Your task to perform on an android device: Open privacy settings Image 0: 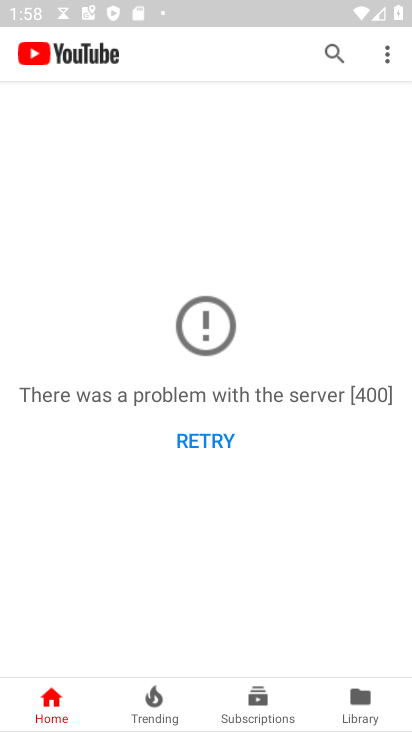
Step 0: press back button
Your task to perform on an android device: Open privacy settings Image 1: 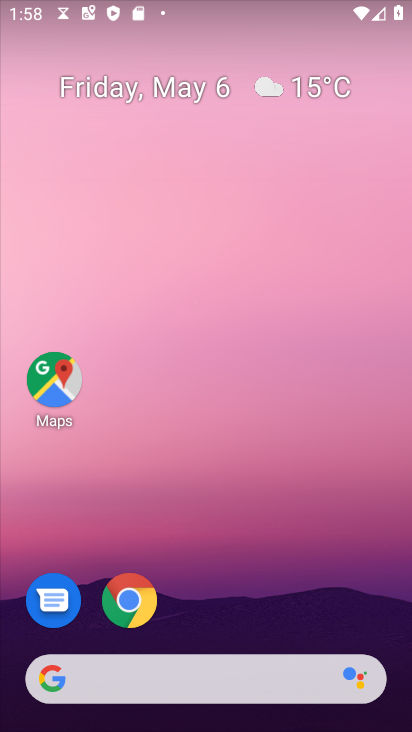
Step 1: drag from (251, 533) to (201, 46)
Your task to perform on an android device: Open privacy settings Image 2: 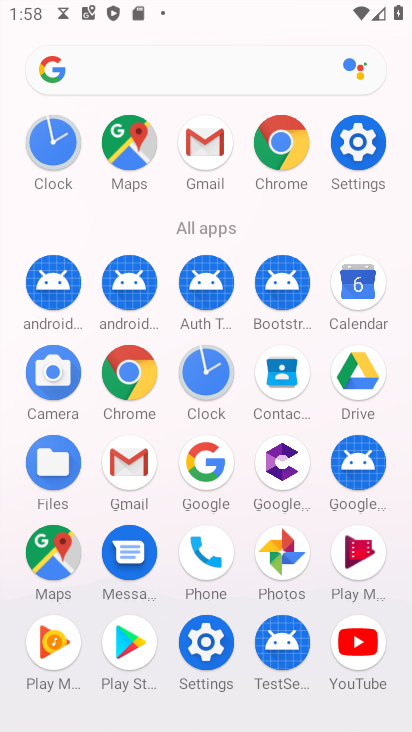
Step 2: drag from (7, 526) to (2, 234)
Your task to perform on an android device: Open privacy settings Image 3: 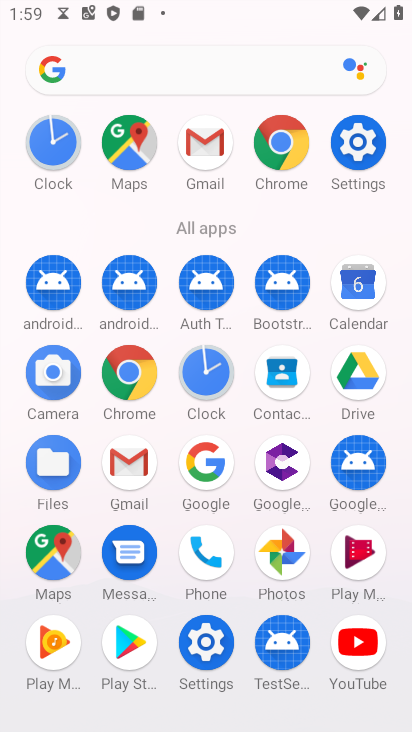
Step 3: click (132, 368)
Your task to perform on an android device: Open privacy settings Image 4: 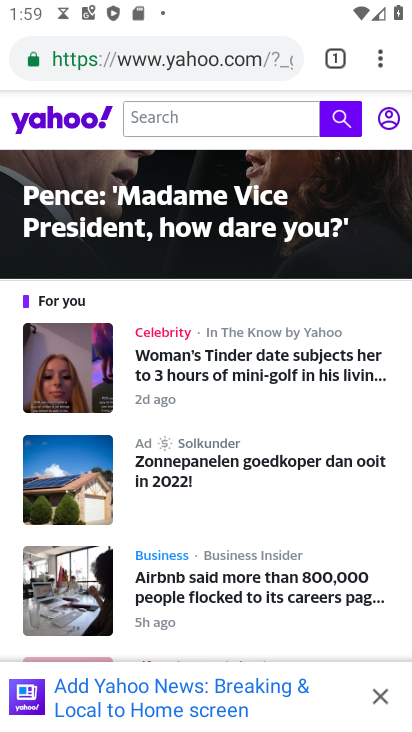
Step 4: drag from (382, 50) to (176, 636)
Your task to perform on an android device: Open privacy settings Image 5: 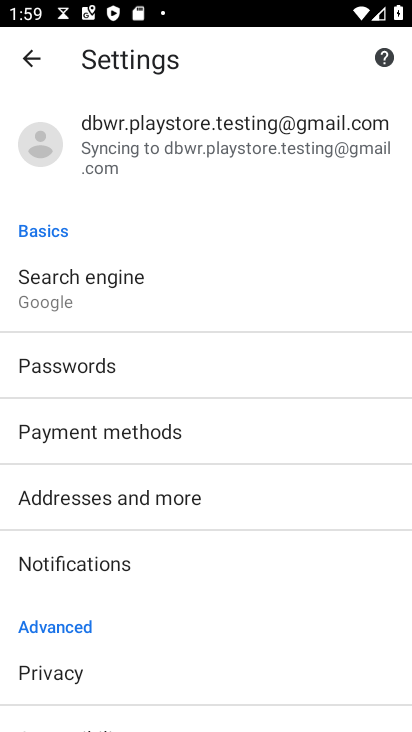
Step 5: click (88, 669)
Your task to perform on an android device: Open privacy settings Image 6: 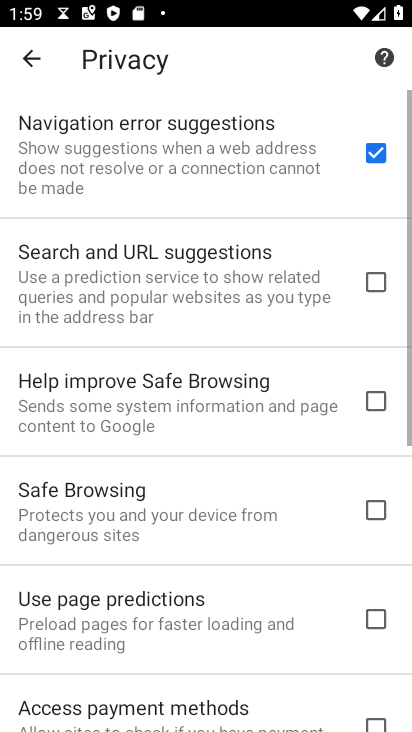
Step 6: task complete